Your task to perform on an android device: Search for pizza restaurants on Maps Image 0: 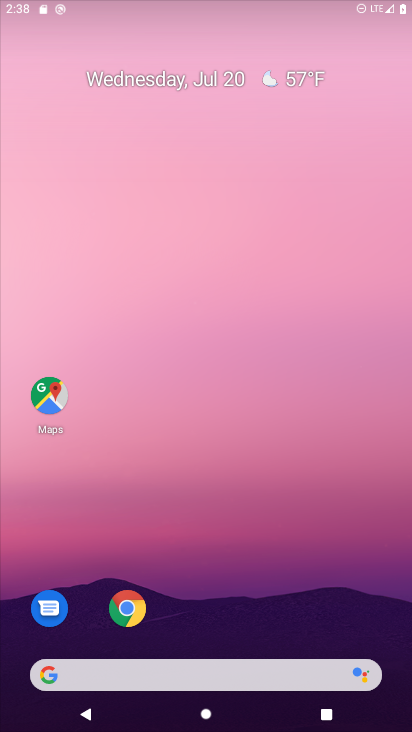
Step 0: press home button
Your task to perform on an android device: Search for pizza restaurants on Maps Image 1: 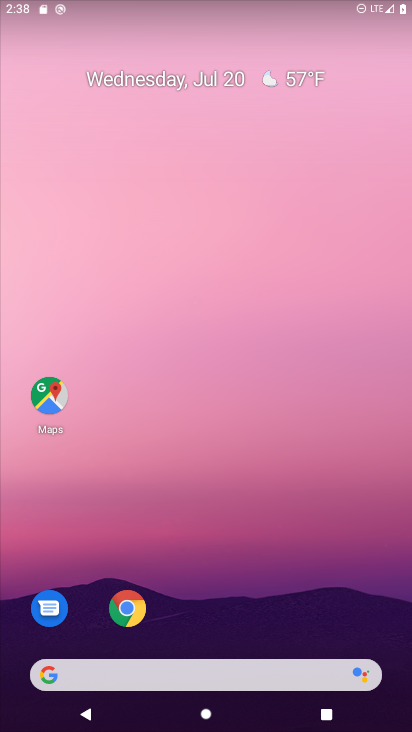
Step 1: drag from (249, 718) to (224, 145)
Your task to perform on an android device: Search for pizza restaurants on Maps Image 2: 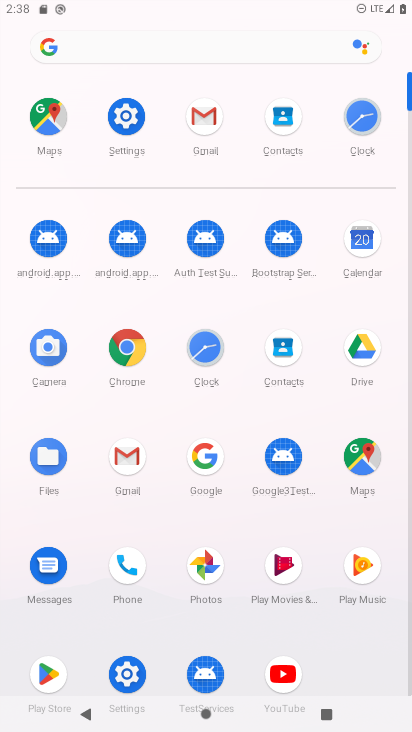
Step 2: click (358, 454)
Your task to perform on an android device: Search for pizza restaurants on Maps Image 3: 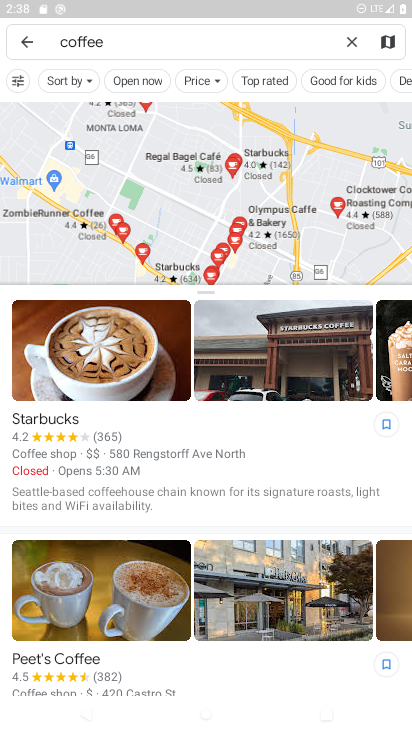
Step 3: click (345, 39)
Your task to perform on an android device: Search for pizza restaurants on Maps Image 4: 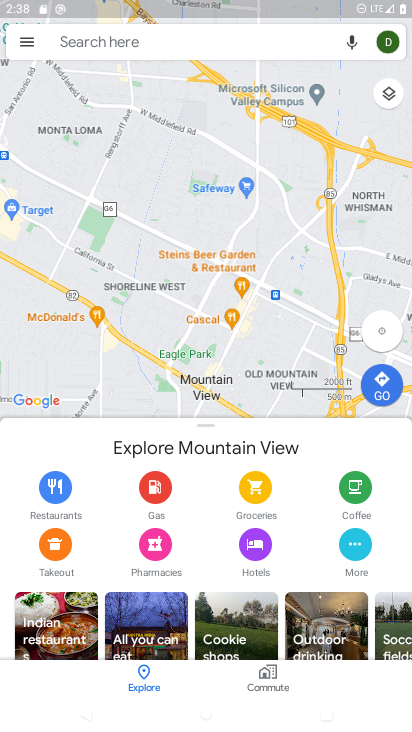
Step 4: click (164, 36)
Your task to perform on an android device: Search for pizza restaurants on Maps Image 5: 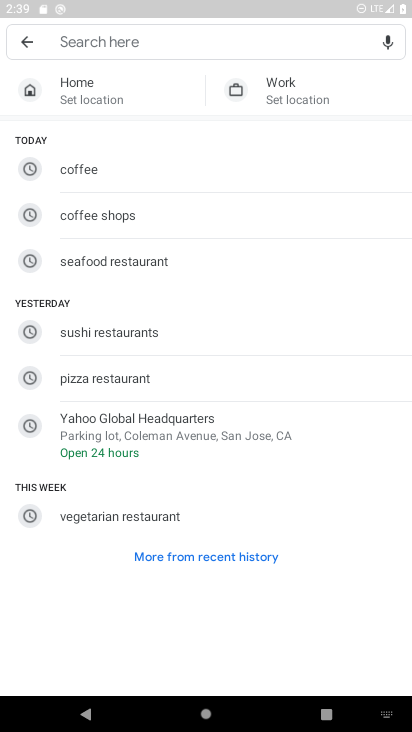
Step 5: type "pizza restaurants"
Your task to perform on an android device: Search for pizza restaurants on Maps Image 6: 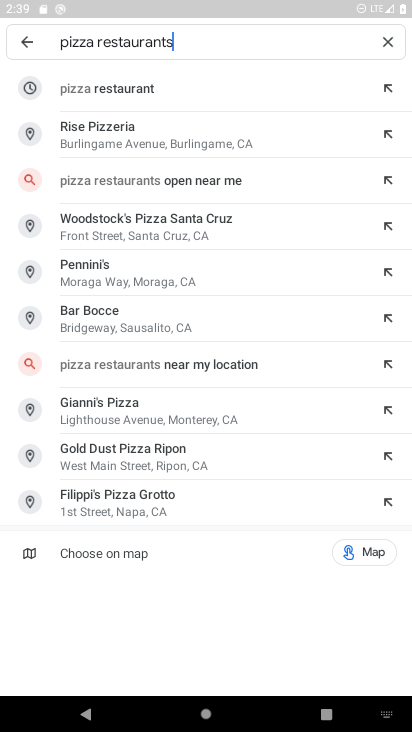
Step 6: click (136, 89)
Your task to perform on an android device: Search for pizza restaurants on Maps Image 7: 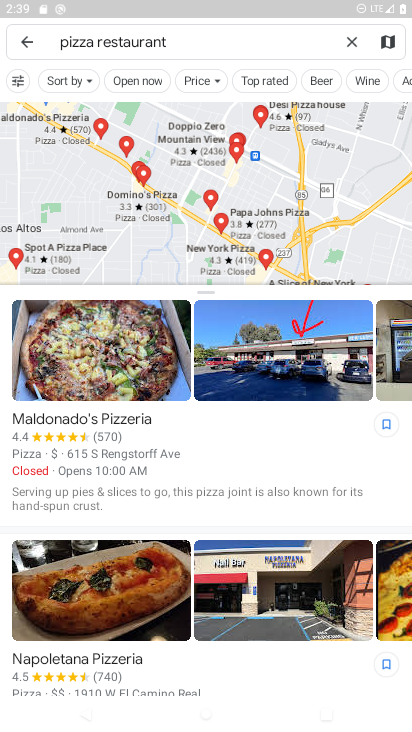
Step 7: task complete